Your task to perform on an android device: What is the news today? Image 0: 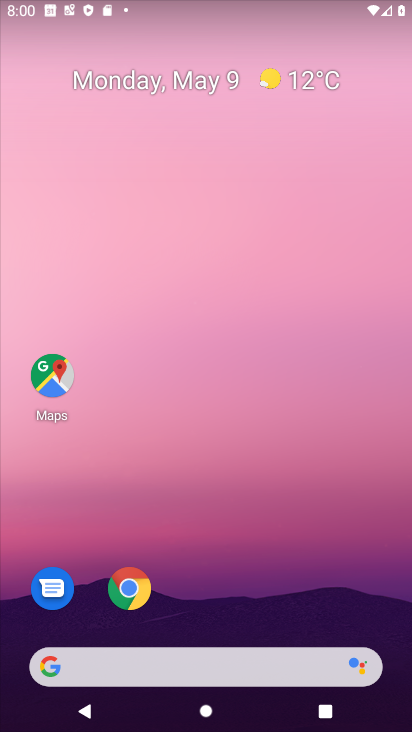
Step 0: click (53, 664)
Your task to perform on an android device: What is the news today? Image 1: 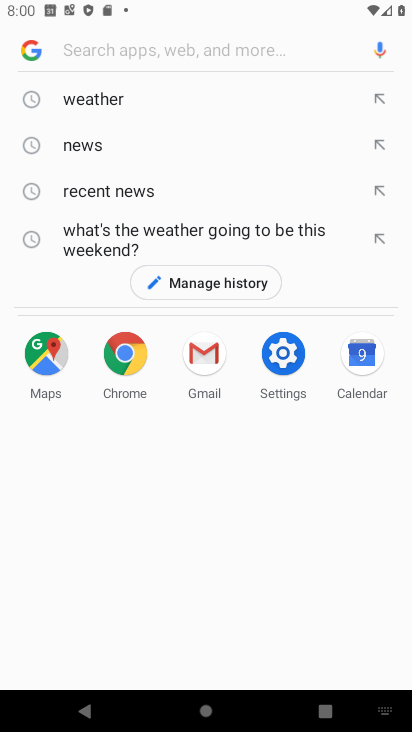
Step 1: click (91, 144)
Your task to perform on an android device: What is the news today? Image 2: 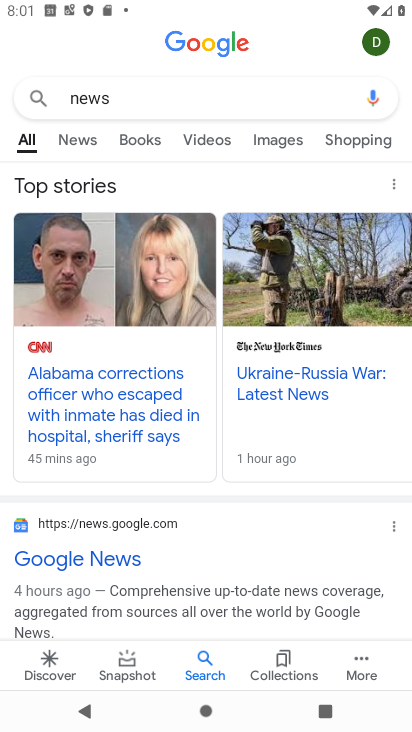
Step 2: task complete